Your task to perform on an android device: What's on my calendar tomorrow? Image 0: 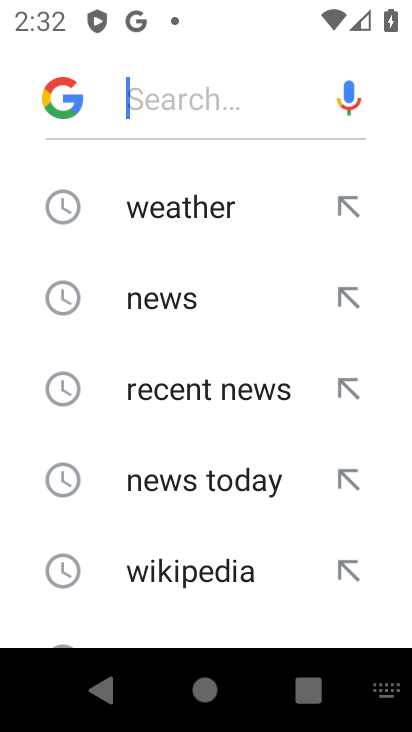
Step 0: press home button
Your task to perform on an android device: What's on my calendar tomorrow? Image 1: 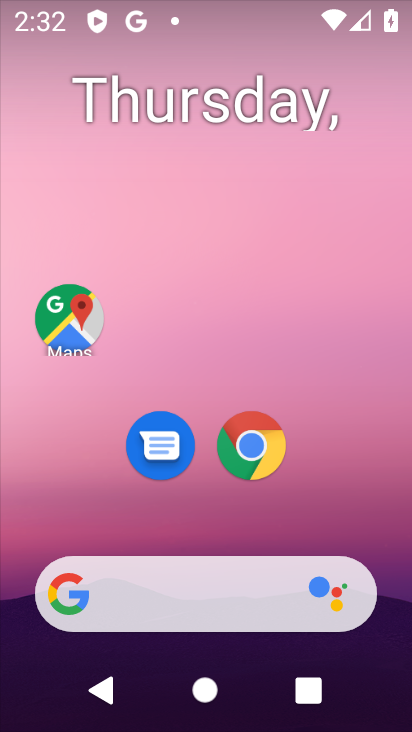
Step 1: drag from (223, 530) to (224, 217)
Your task to perform on an android device: What's on my calendar tomorrow? Image 2: 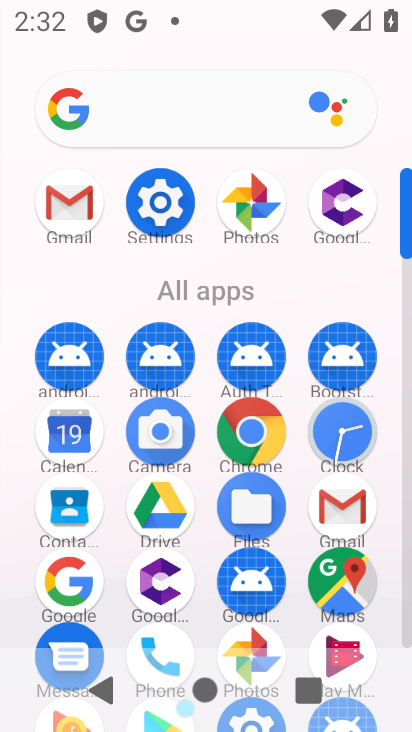
Step 2: click (68, 445)
Your task to perform on an android device: What's on my calendar tomorrow? Image 3: 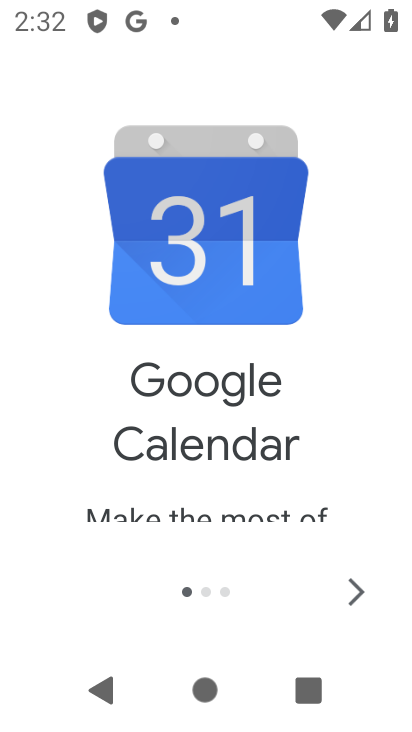
Step 3: click (345, 592)
Your task to perform on an android device: What's on my calendar tomorrow? Image 4: 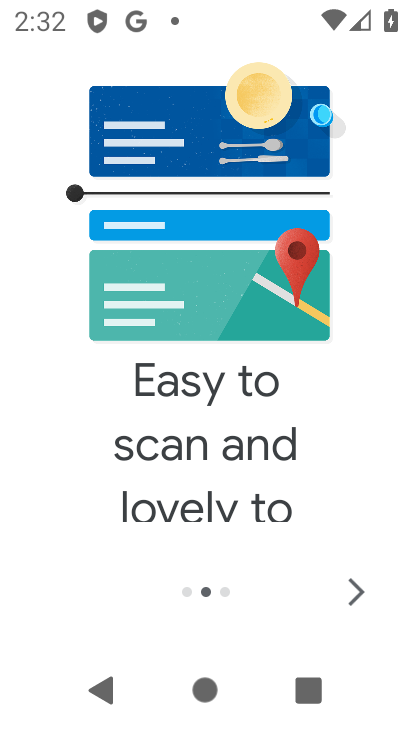
Step 4: click (367, 593)
Your task to perform on an android device: What's on my calendar tomorrow? Image 5: 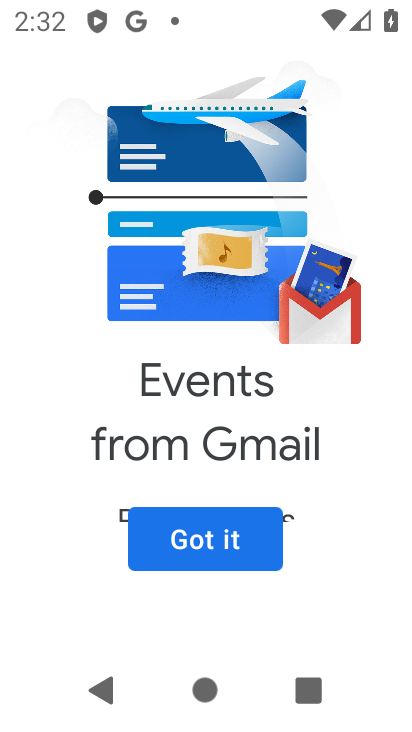
Step 5: click (246, 529)
Your task to perform on an android device: What's on my calendar tomorrow? Image 6: 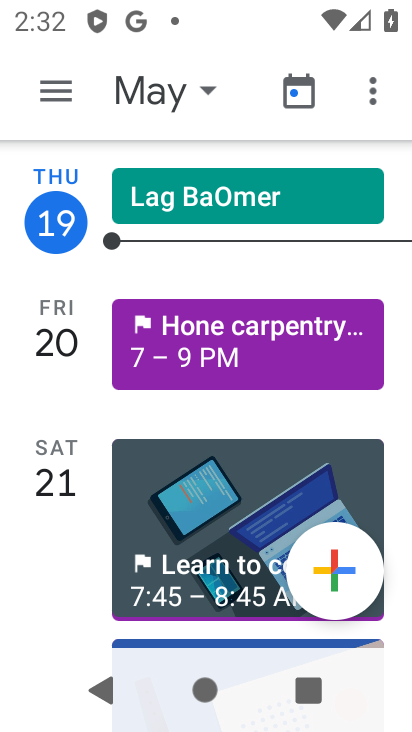
Step 6: click (72, 89)
Your task to perform on an android device: What's on my calendar tomorrow? Image 7: 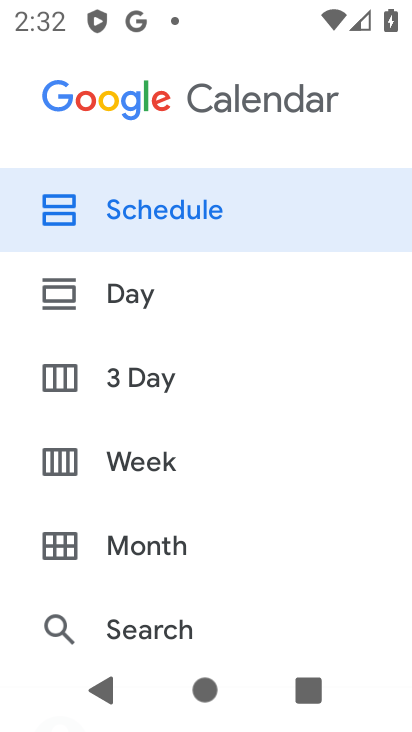
Step 7: click (142, 393)
Your task to perform on an android device: What's on my calendar tomorrow? Image 8: 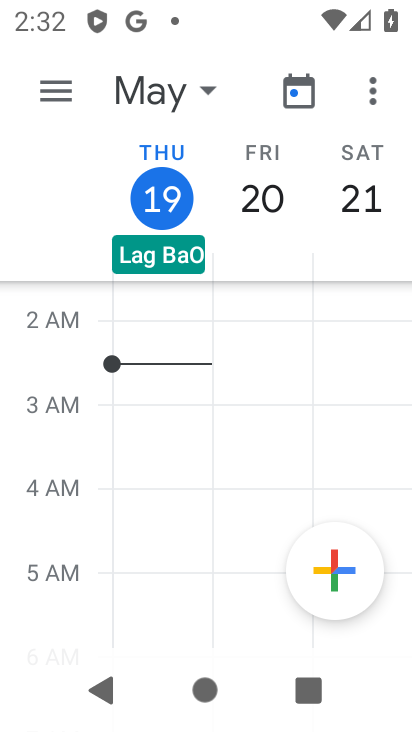
Step 8: task complete